Your task to perform on an android device: Go to internet settings Image 0: 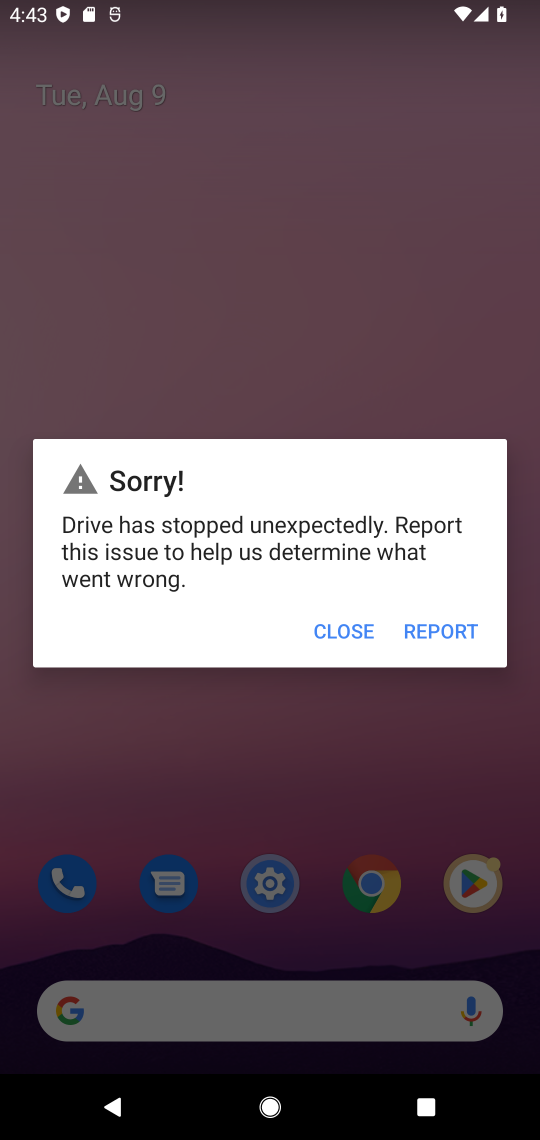
Step 0: click (342, 633)
Your task to perform on an android device: Go to internet settings Image 1: 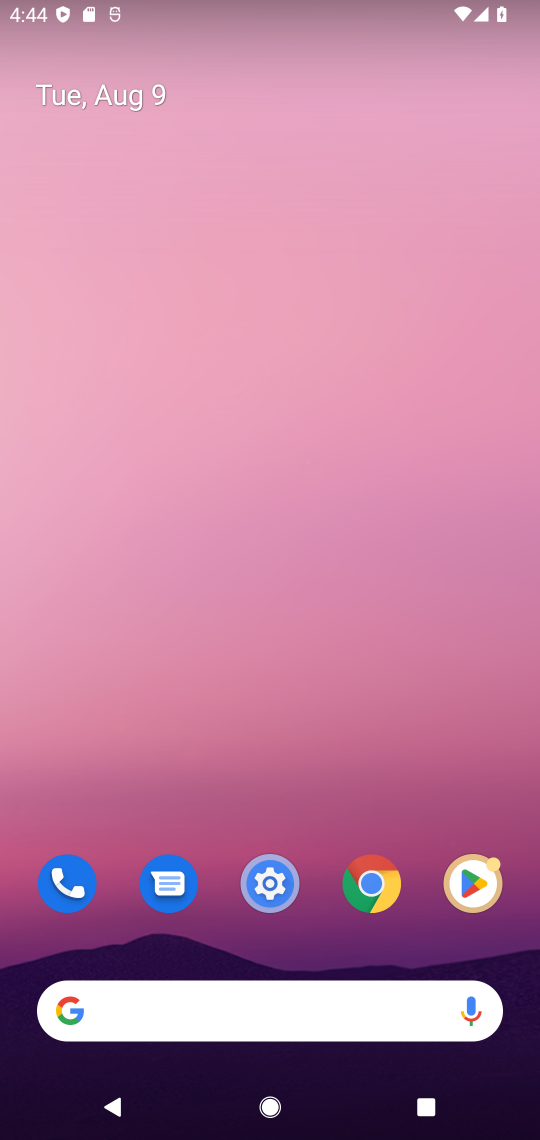
Step 1: click (259, 888)
Your task to perform on an android device: Go to internet settings Image 2: 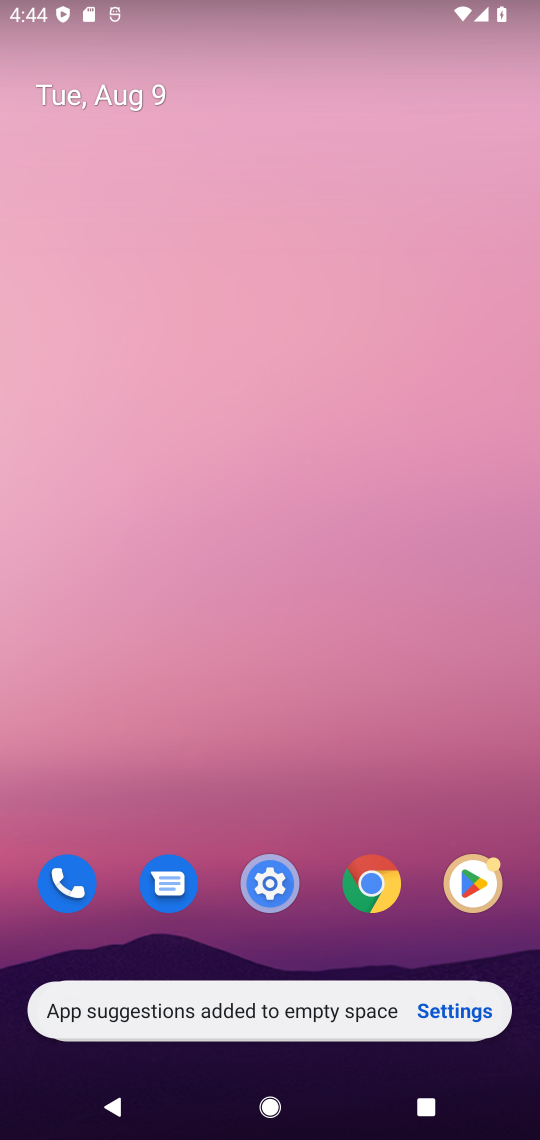
Step 2: click (259, 871)
Your task to perform on an android device: Go to internet settings Image 3: 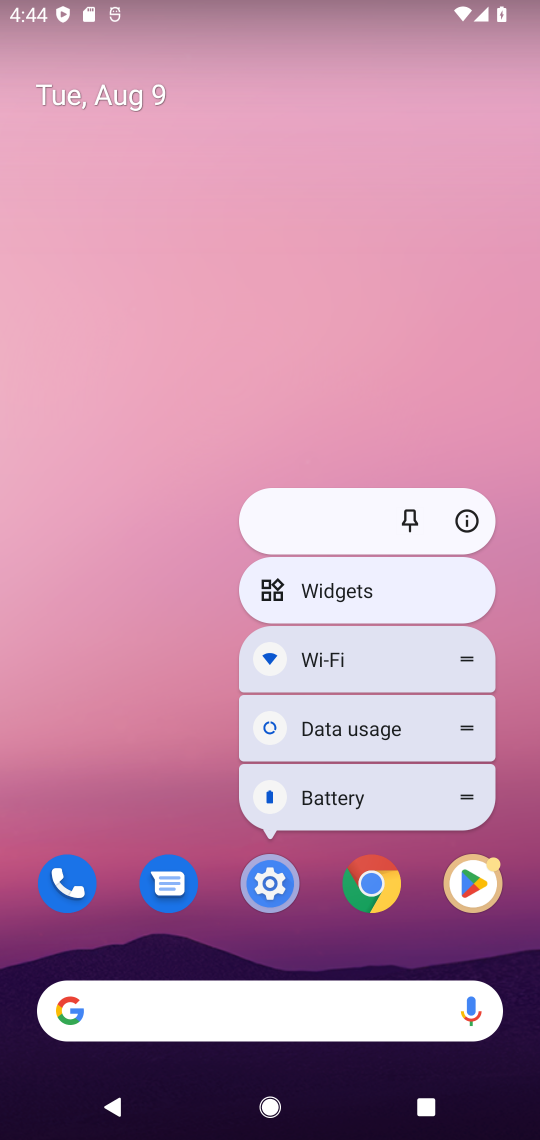
Step 3: click (249, 890)
Your task to perform on an android device: Go to internet settings Image 4: 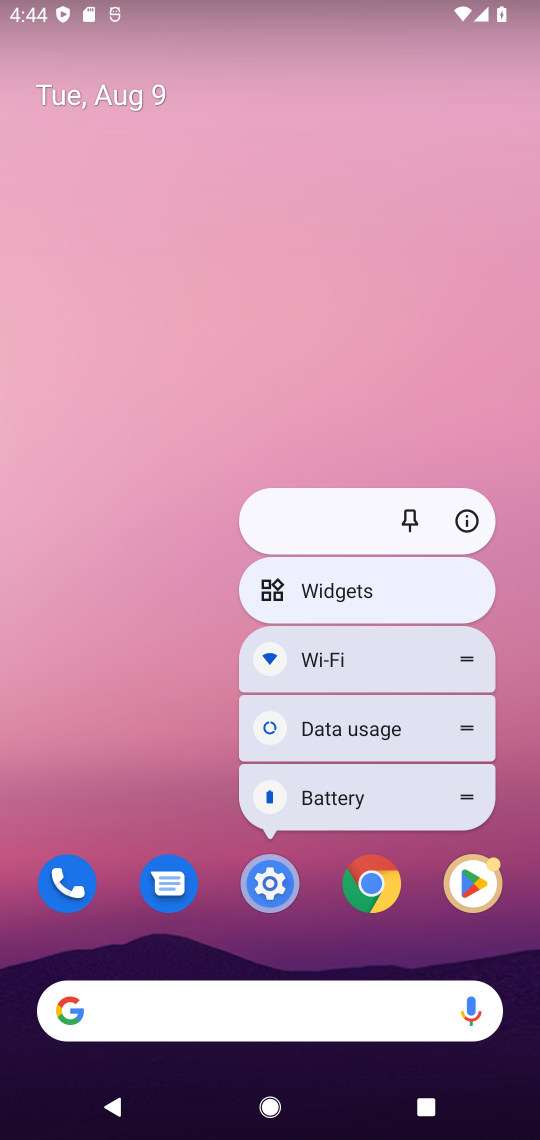
Step 4: click (249, 890)
Your task to perform on an android device: Go to internet settings Image 5: 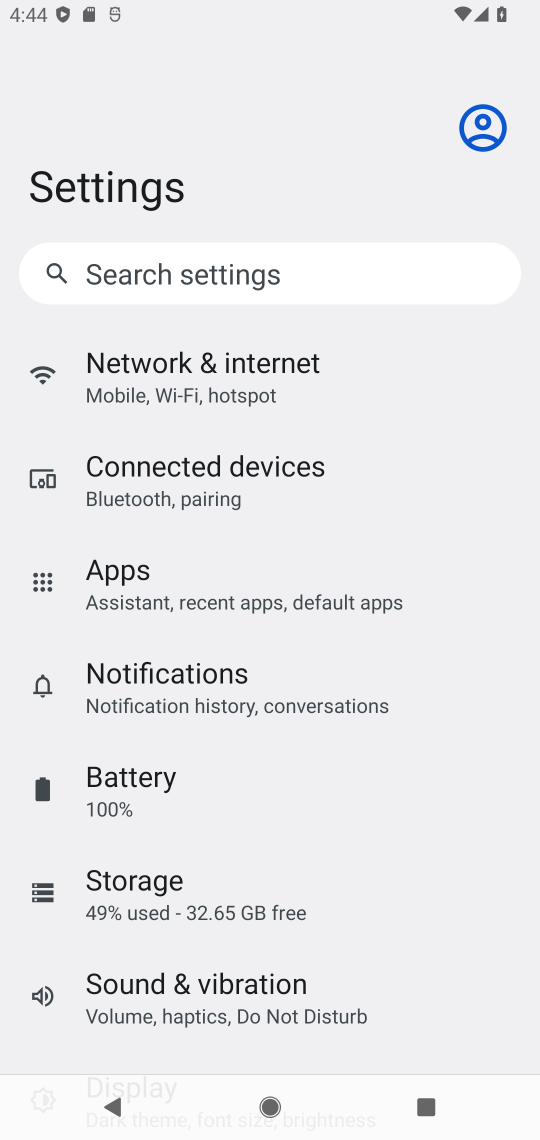
Step 5: click (262, 368)
Your task to perform on an android device: Go to internet settings Image 6: 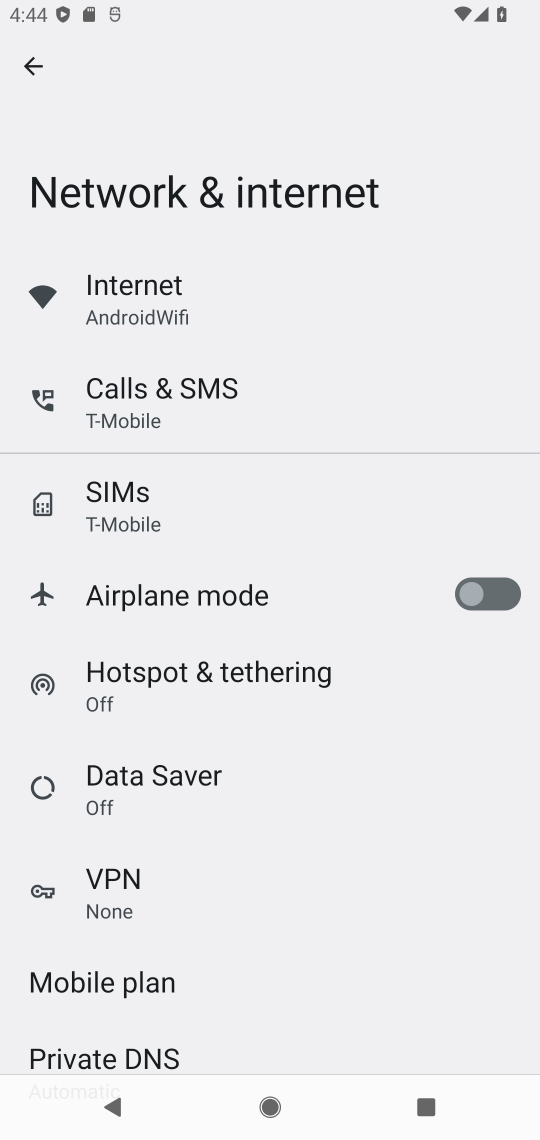
Step 6: click (209, 316)
Your task to perform on an android device: Go to internet settings Image 7: 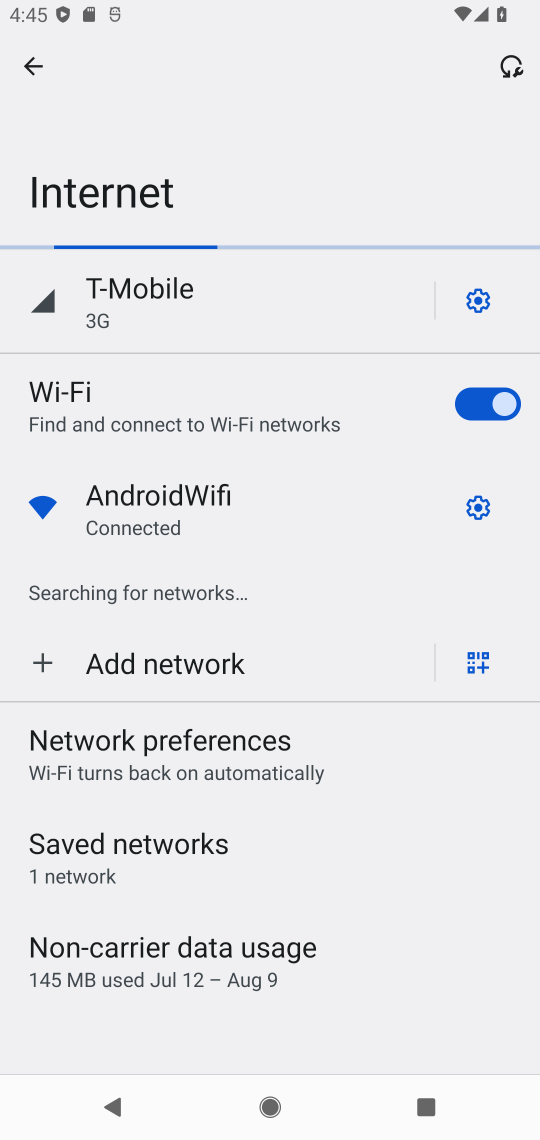
Step 7: task complete